Your task to perform on an android device: View the shopping cart on walmart. Add "bose soundlink" to the cart on walmart, then select checkout. Image 0: 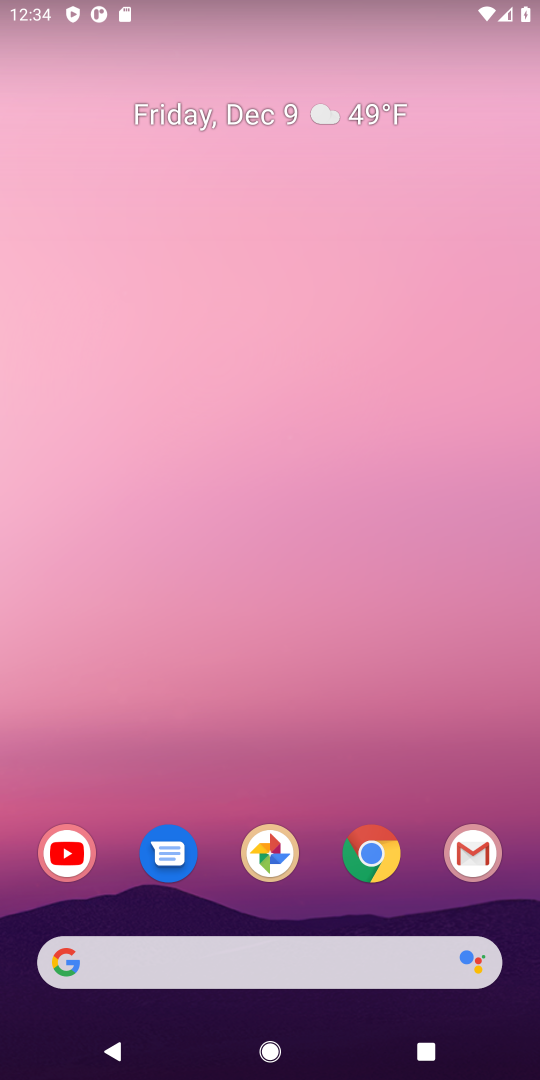
Step 0: drag from (273, 936) to (399, 152)
Your task to perform on an android device: View the shopping cart on walmart. Add "bose soundlink" to the cart on walmart, then select checkout. Image 1: 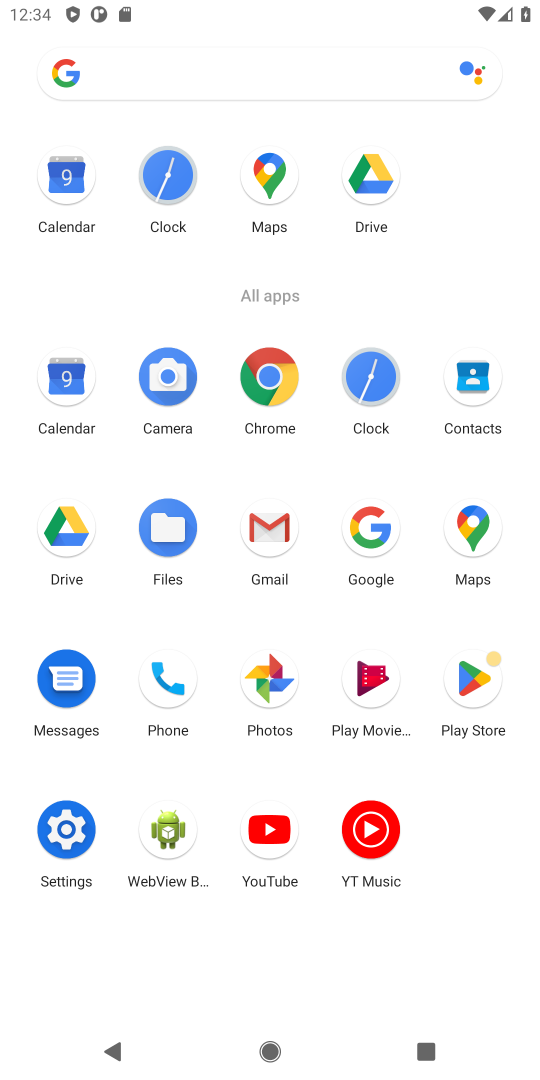
Step 1: click (363, 528)
Your task to perform on an android device: View the shopping cart on walmart. Add "bose soundlink" to the cart on walmart, then select checkout. Image 2: 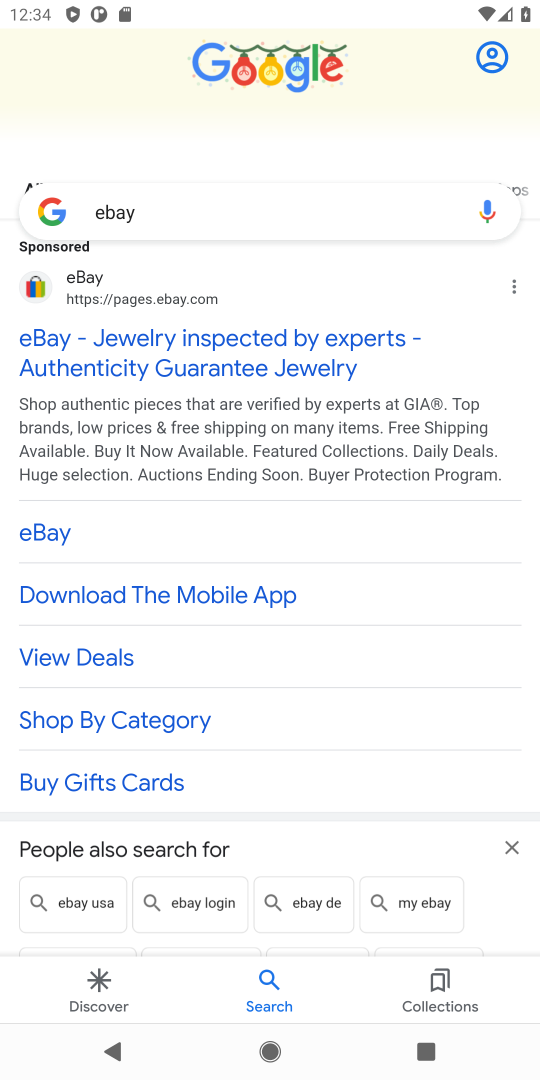
Step 2: click (152, 210)
Your task to perform on an android device: View the shopping cart on walmart. Add "bose soundlink" to the cart on walmart, then select checkout. Image 3: 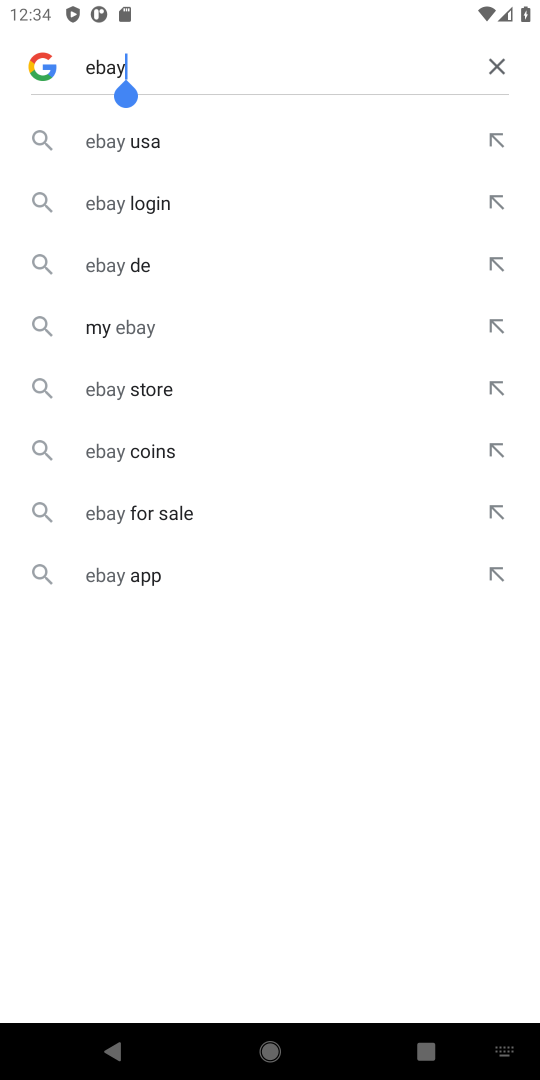
Step 3: click (502, 73)
Your task to perform on an android device: View the shopping cart on walmart. Add "bose soundlink" to the cart on walmart, then select checkout. Image 4: 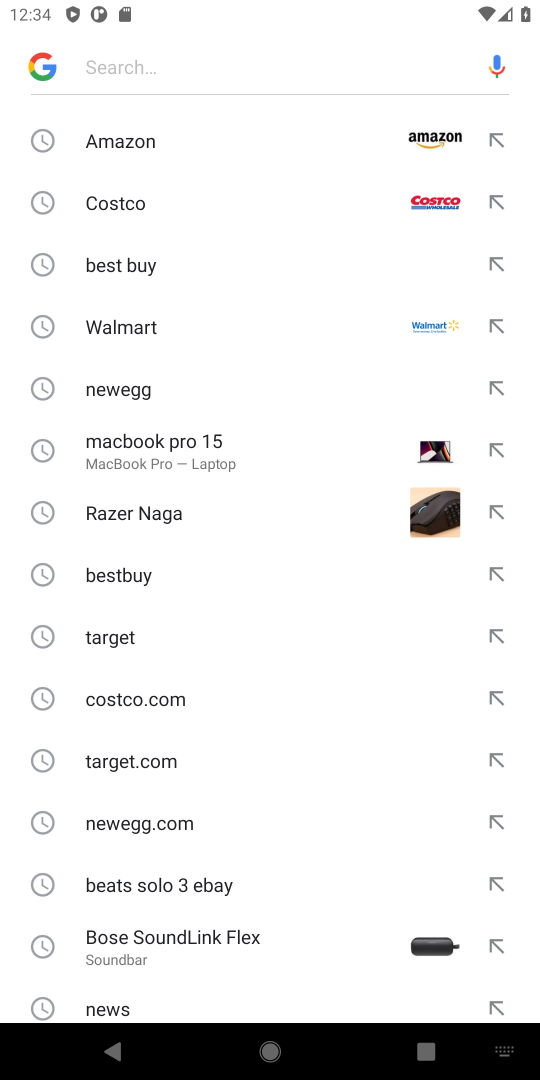
Step 4: click (131, 323)
Your task to perform on an android device: View the shopping cart on walmart. Add "bose soundlink" to the cart on walmart, then select checkout. Image 5: 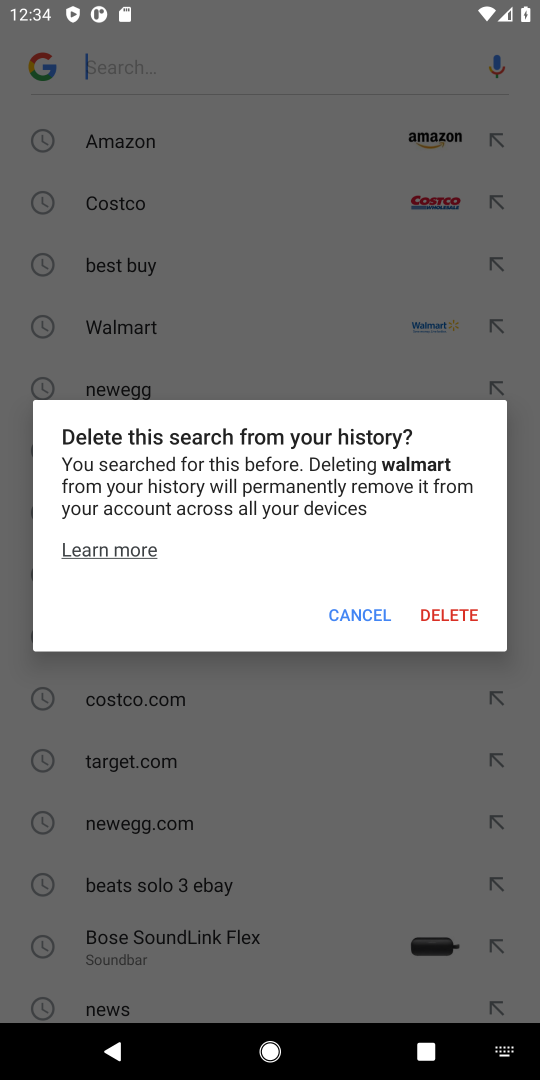
Step 5: click (387, 613)
Your task to perform on an android device: View the shopping cart on walmart. Add "bose soundlink" to the cart on walmart, then select checkout. Image 6: 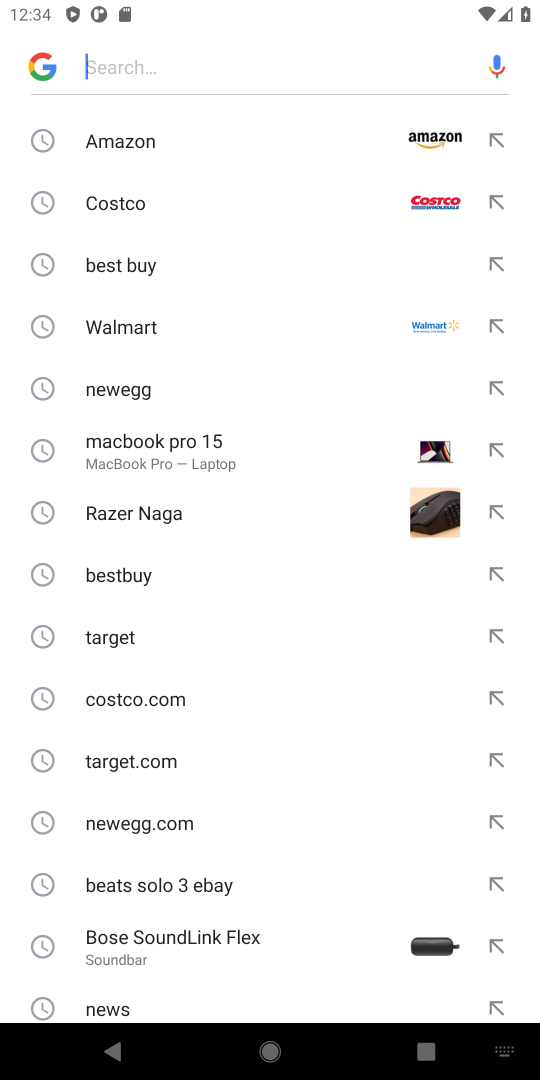
Step 6: click (502, 331)
Your task to perform on an android device: View the shopping cart on walmart. Add "bose soundlink" to the cart on walmart, then select checkout. Image 7: 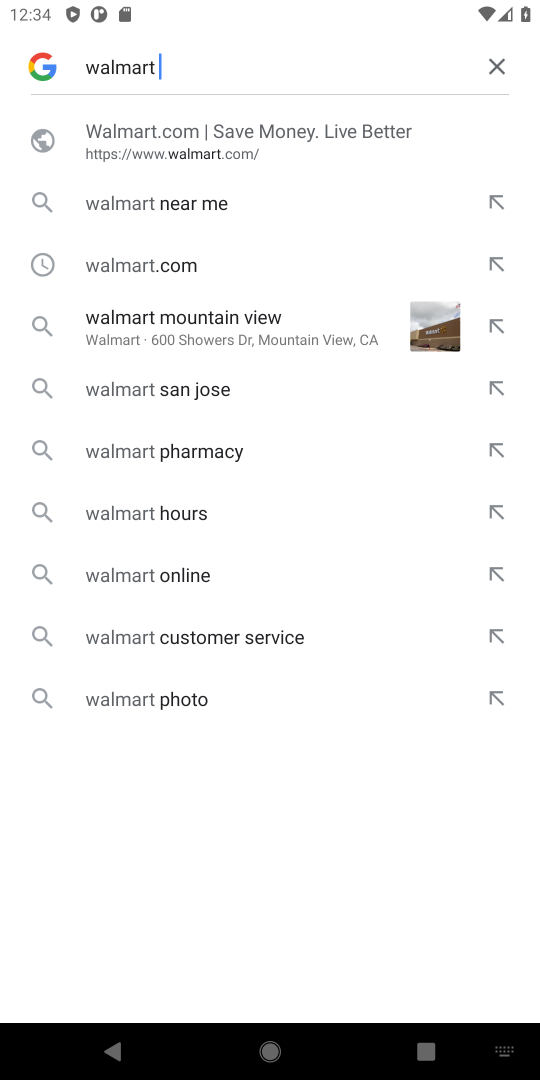
Step 7: click (198, 140)
Your task to perform on an android device: View the shopping cart on walmart. Add "bose soundlink" to the cart on walmart, then select checkout. Image 8: 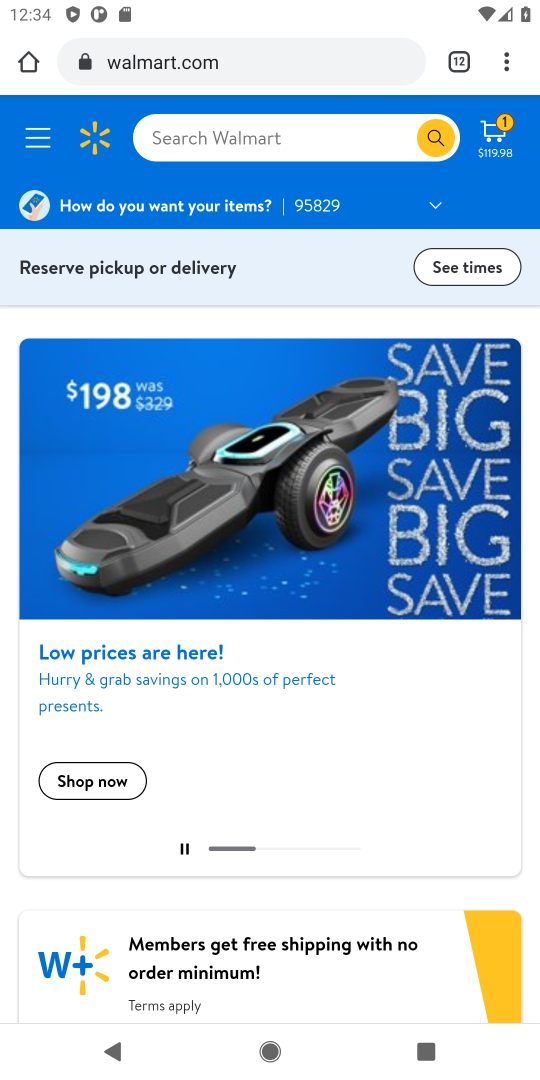
Step 8: click (253, 130)
Your task to perform on an android device: View the shopping cart on walmart. Add "bose soundlink" to the cart on walmart, then select checkout. Image 9: 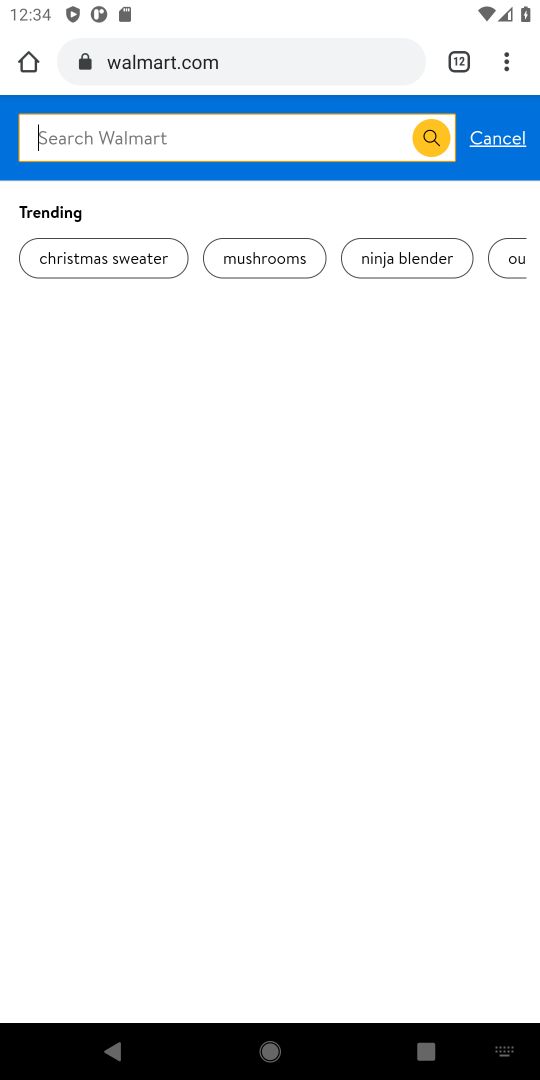
Step 9: type "bose soundlink"
Your task to perform on an android device: View the shopping cart on walmart. Add "bose soundlink" to the cart on walmart, then select checkout. Image 10: 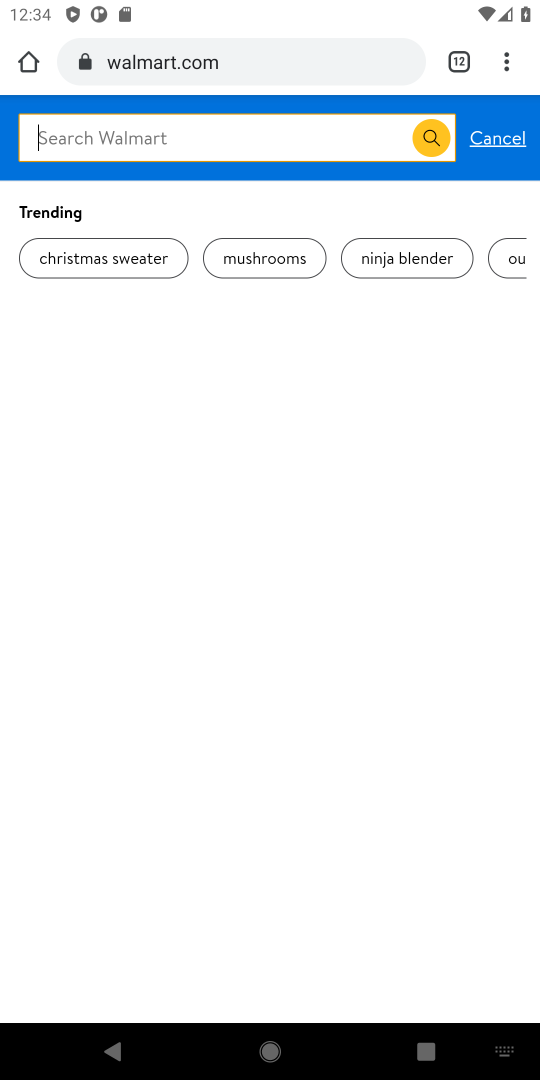
Step 10: click (438, 133)
Your task to perform on an android device: View the shopping cart on walmart. Add "bose soundlink" to the cart on walmart, then select checkout. Image 11: 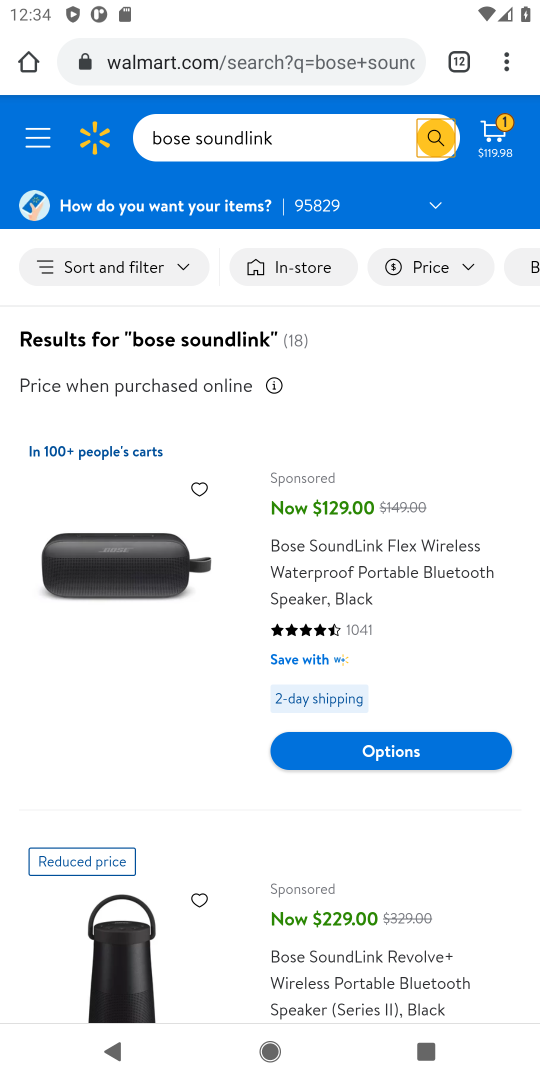
Step 11: drag from (368, 951) to (380, 389)
Your task to perform on an android device: View the shopping cart on walmart. Add "bose soundlink" to the cart on walmart, then select checkout. Image 12: 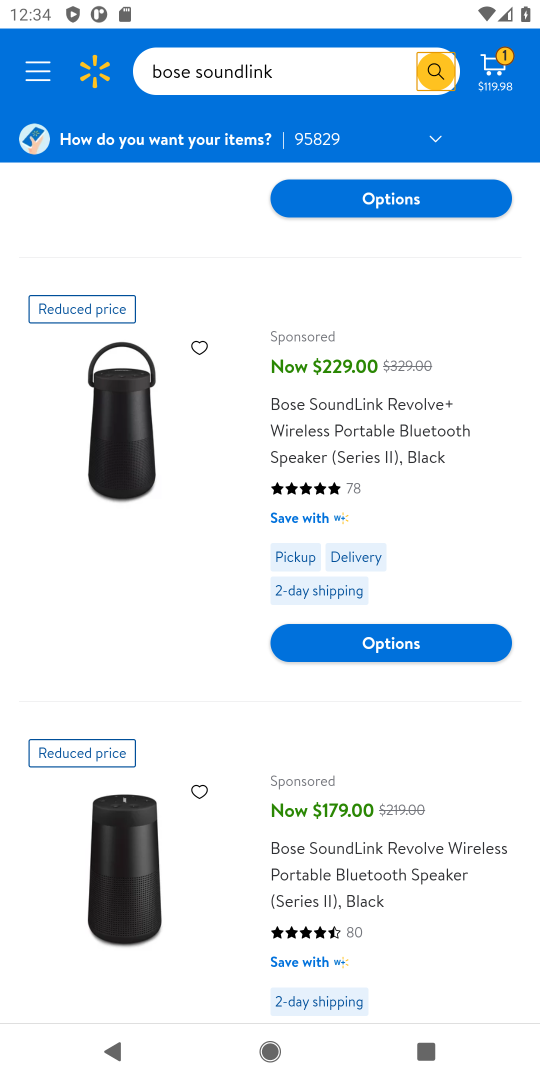
Step 12: drag from (391, 773) to (391, 273)
Your task to perform on an android device: View the shopping cart on walmart. Add "bose soundlink" to the cart on walmart, then select checkout. Image 13: 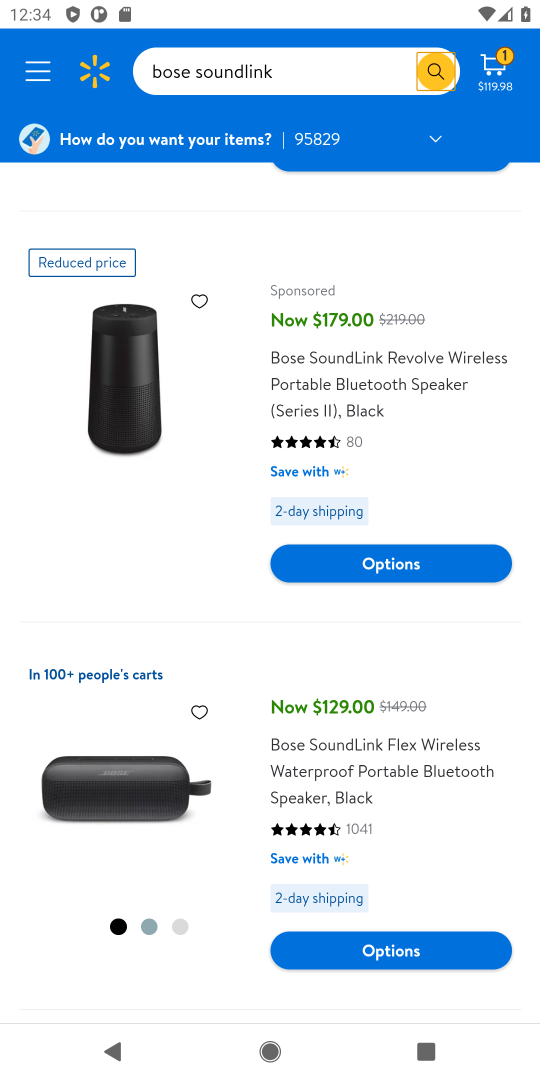
Step 13: drag from (386, 789) to (456, 284)
Your task to perform on an android device: View the shopping cart on walmart. Add "bose soundlink" to the cart on walmart, then select checkout. Image 14: 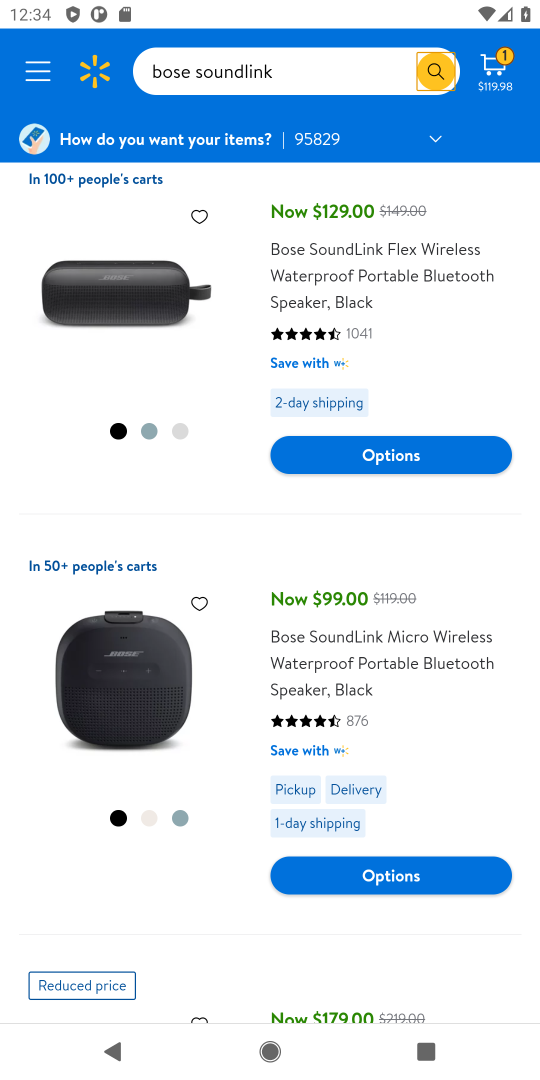
Step 14: drag from (411, 235) to (421, 903)
Your task to perform on an android device: View the shopping cart on walmart. Add "bose soundlink" to the cart on walmart, then select checkout. Image 15: 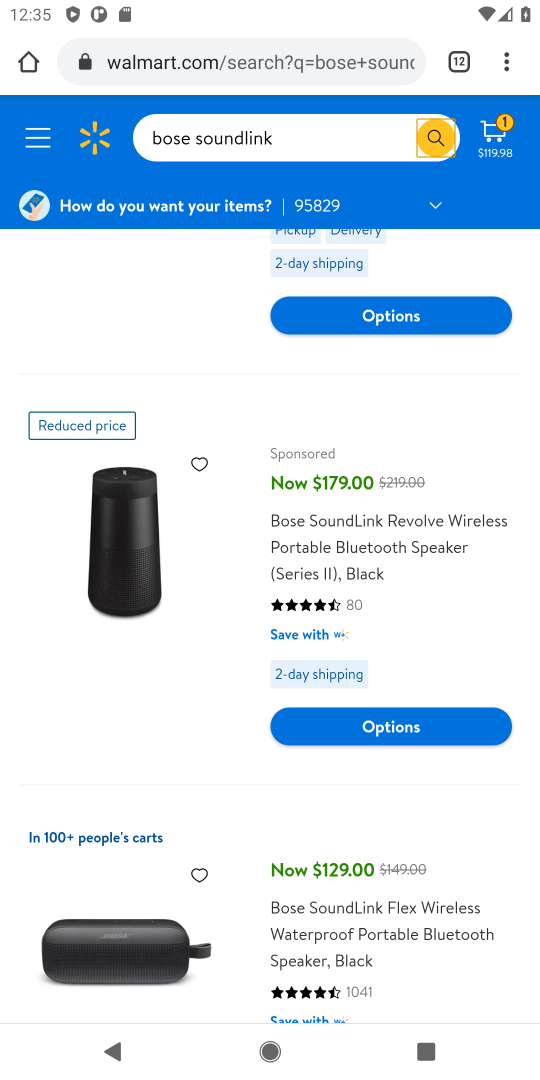
Step 15: drag from (373, 277) to (383, 807)
Your task to perform on an android device: View the shopping cart on walmart. Add "bose soundlink" to the cart on walmart, then select checkout. Image 16: 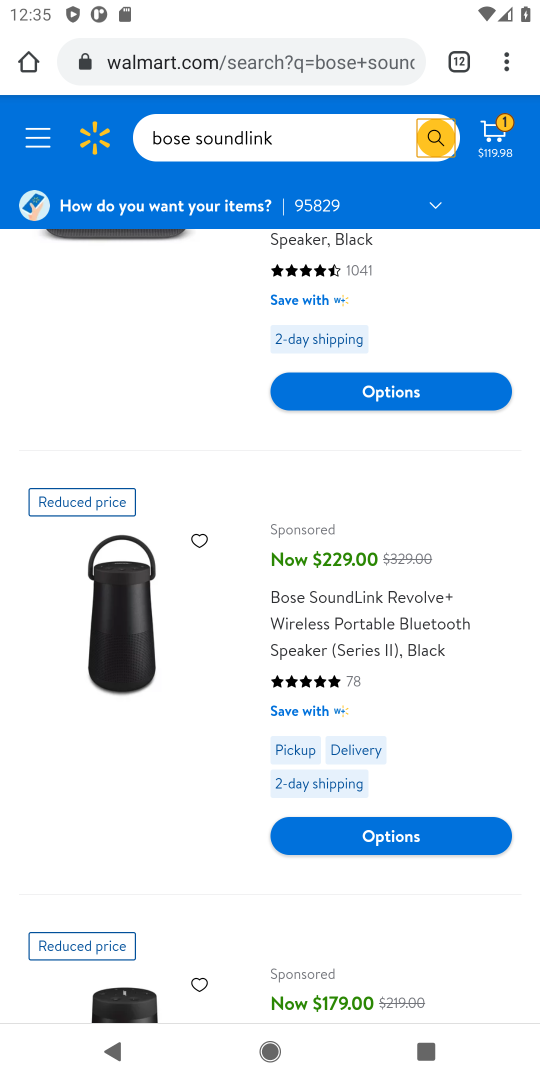
Step 16: drag from (366, 302) to (422, 777)
Your task to perform on an android device: View the shopping cart on walmart. Add "bose soundlink" to the cart on walmart, then select checkout. Image 17: 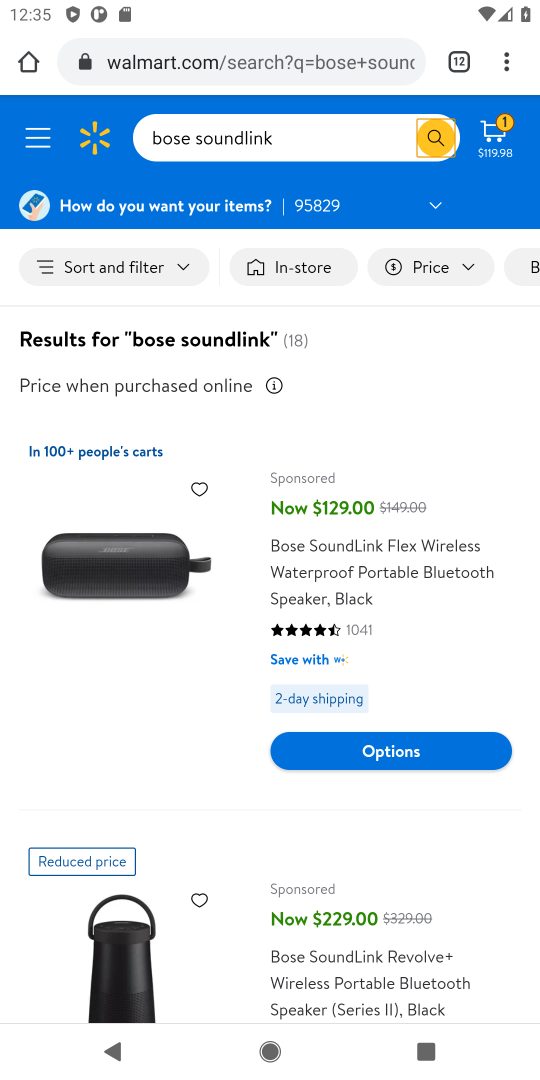
Step 17: click (423, 752)
Your task to perform on an android device: View the shopping cart on walmart. Add "bose soundlink" to the cart on walmart, then select checkout. Image 18: 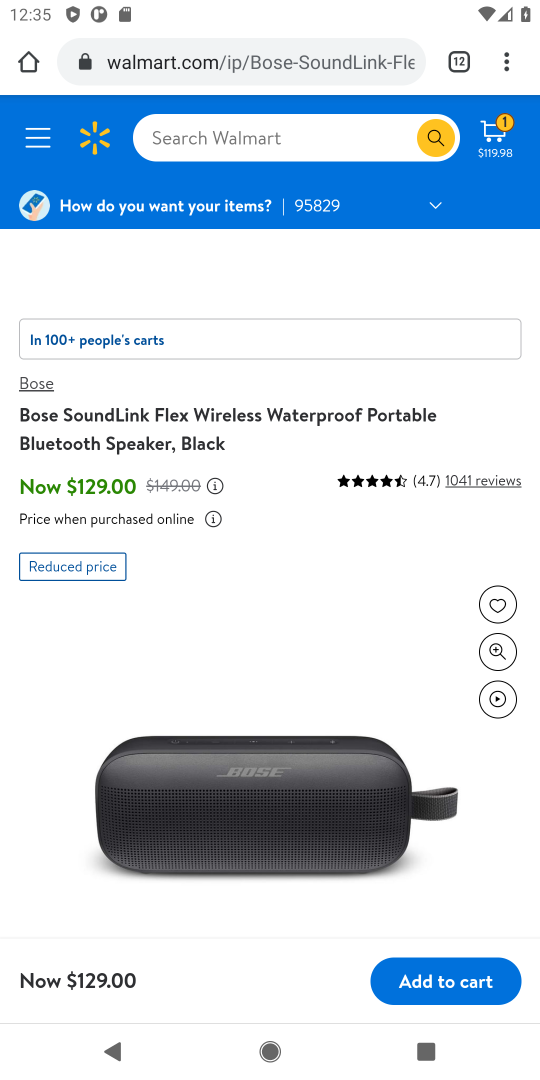
Step 18: click (436, 979)
Your task to perform on an android device: View the shopping cart on walmart. Add "bose soundlink" to the cart on walmart, then select checkout. Image 19: 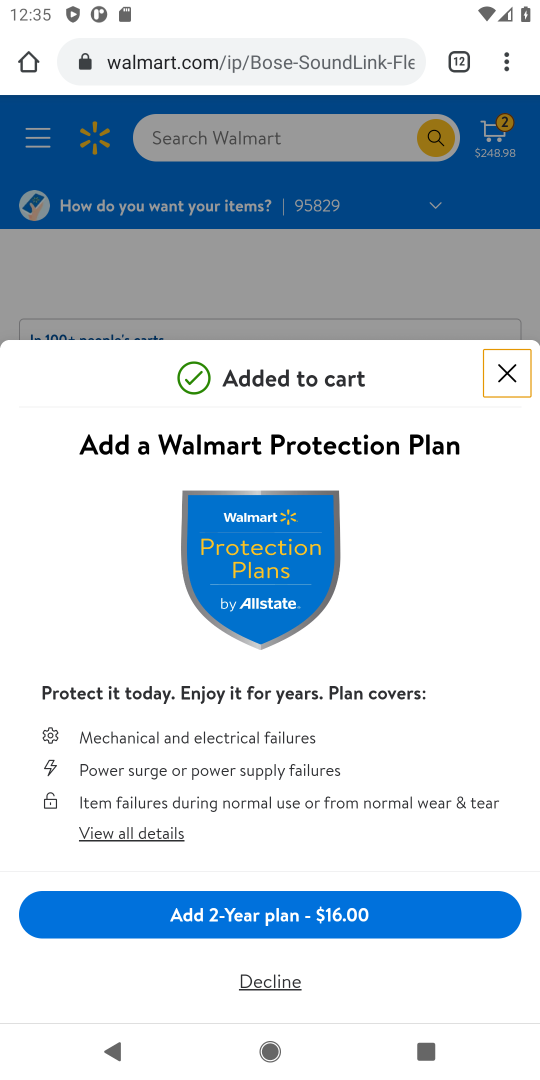
Step 19: click (285, 980)
Your task to perform on an android device: View the shopping cart on walmart. Add "bose soundlink" to the cart on walmart, then select checkout. Image 20: 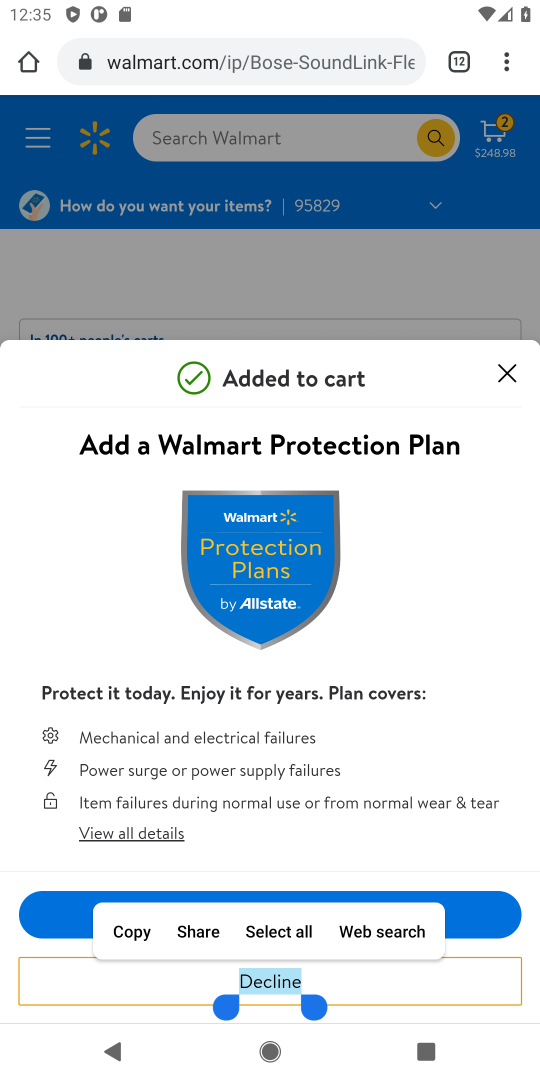
Step 20: click (491, 374)
Your task to perform on an android device: View the shopping cart on walmart. Add "bose soundlink" to the cart on walmart, then select checkout. Image 21: 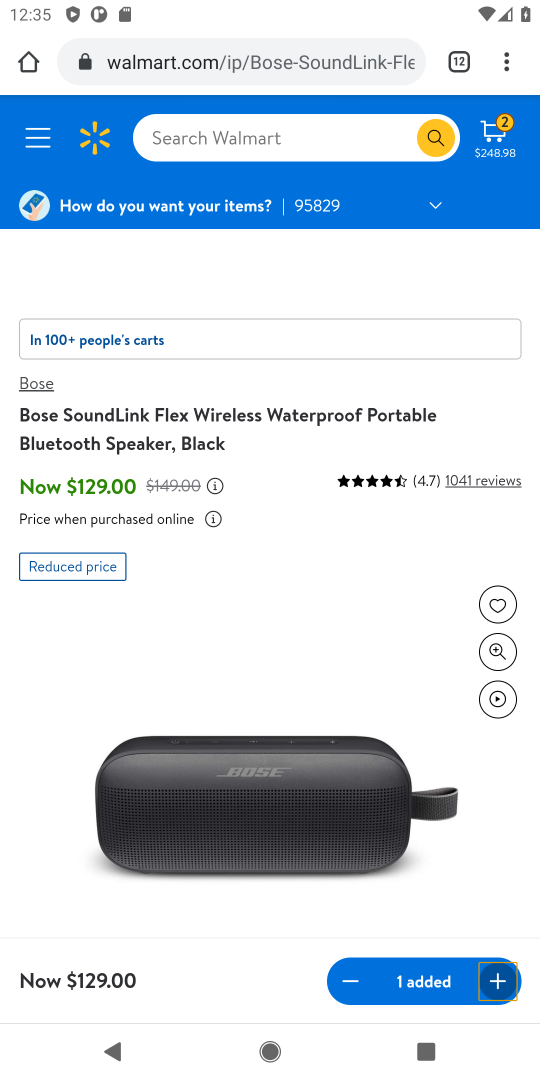
Step 21: click (513, 127)
Your task to perform on an android device: View the shopping cart on walmart. Add "bose soundlink" to the cart on walmart, then select checkout. Image 22: 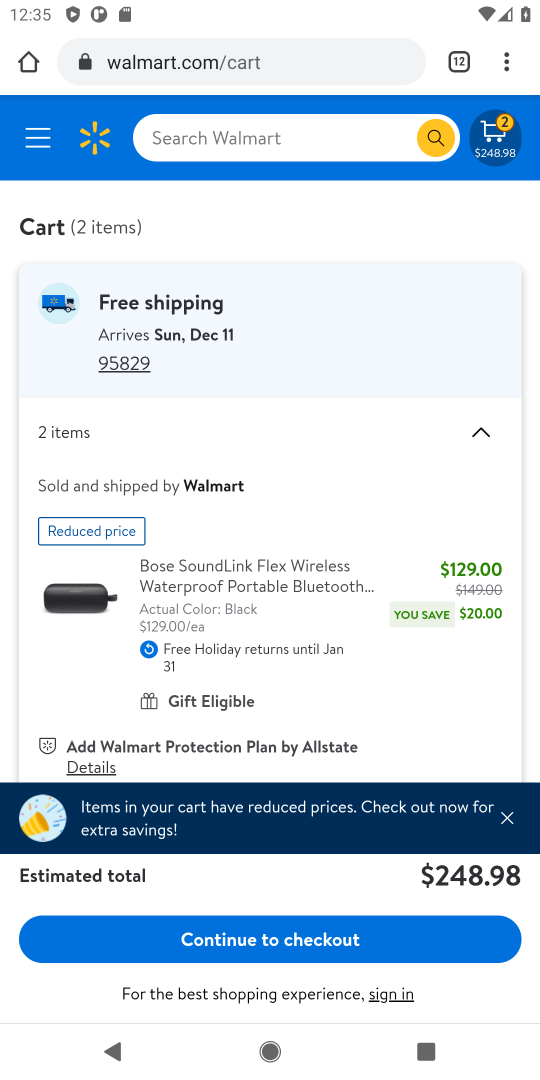
Step 22: click (322, 940)
Your task to perform on an android device: View the shopping cart on walmart. Add "bose soundlink" to the cart on walmart, then select checkout. Image 23: 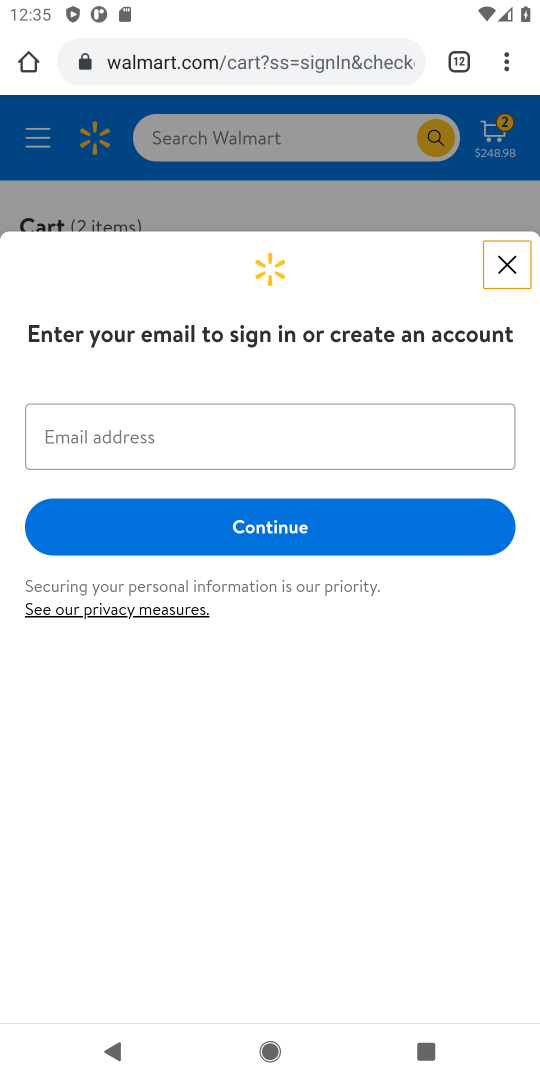
Step 23: task complete